Your task to perform on an android device: open app "Grab" (install if not already installed) and go to login screen Image 0: 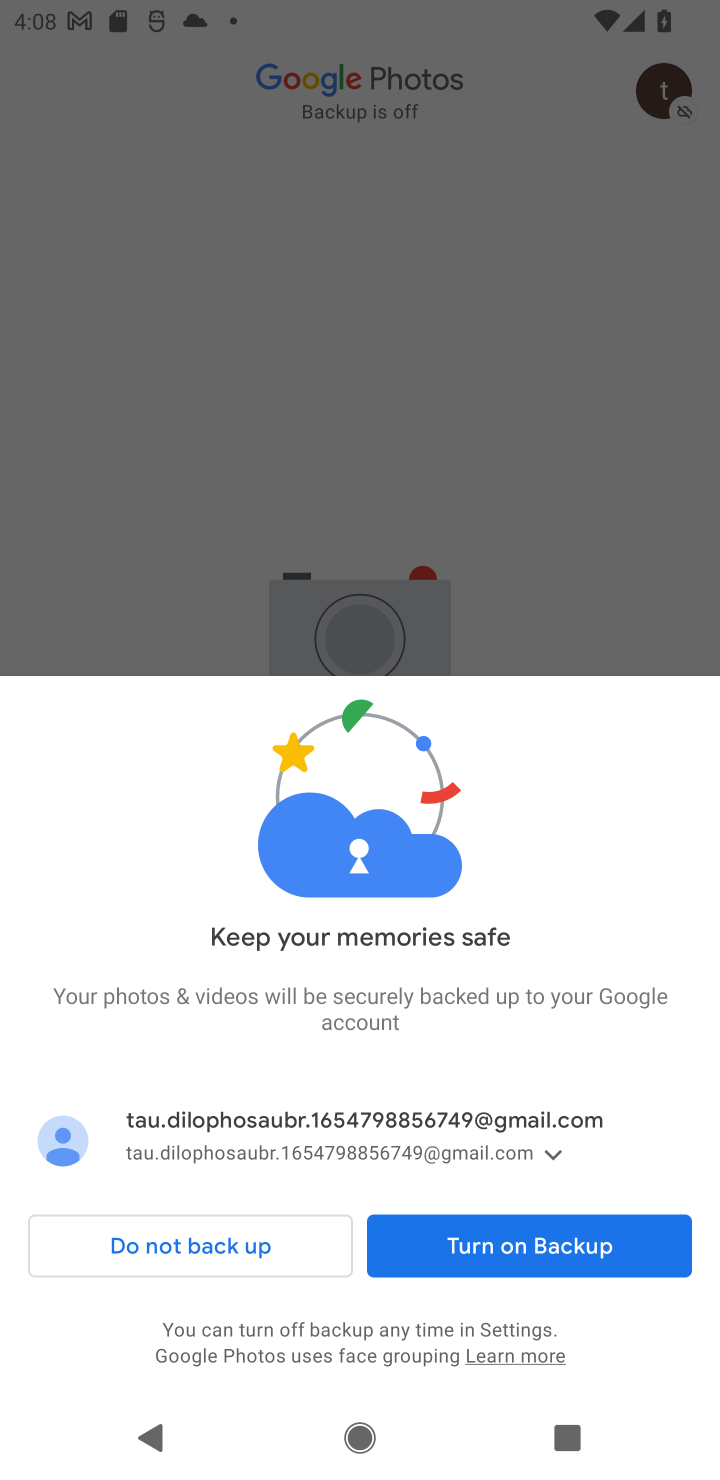
Step 0: press home button
Your task to perform on an android device: open app "Grab" (install if not already installed) and go to login screen Image 1: 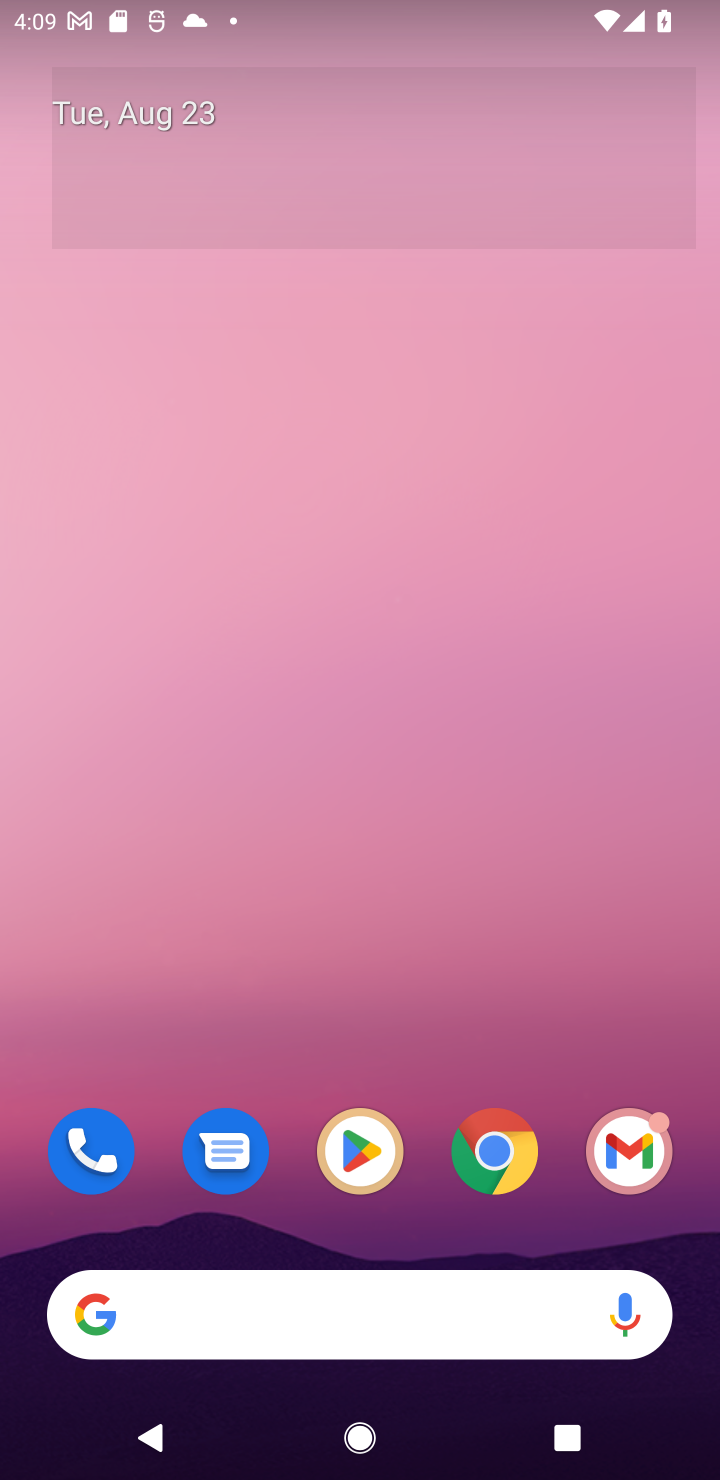
Step 1: click (349, 1148)
Your task to perform on an android device: open app "Grab" (install if not already installed) and go to login screen Image 2: 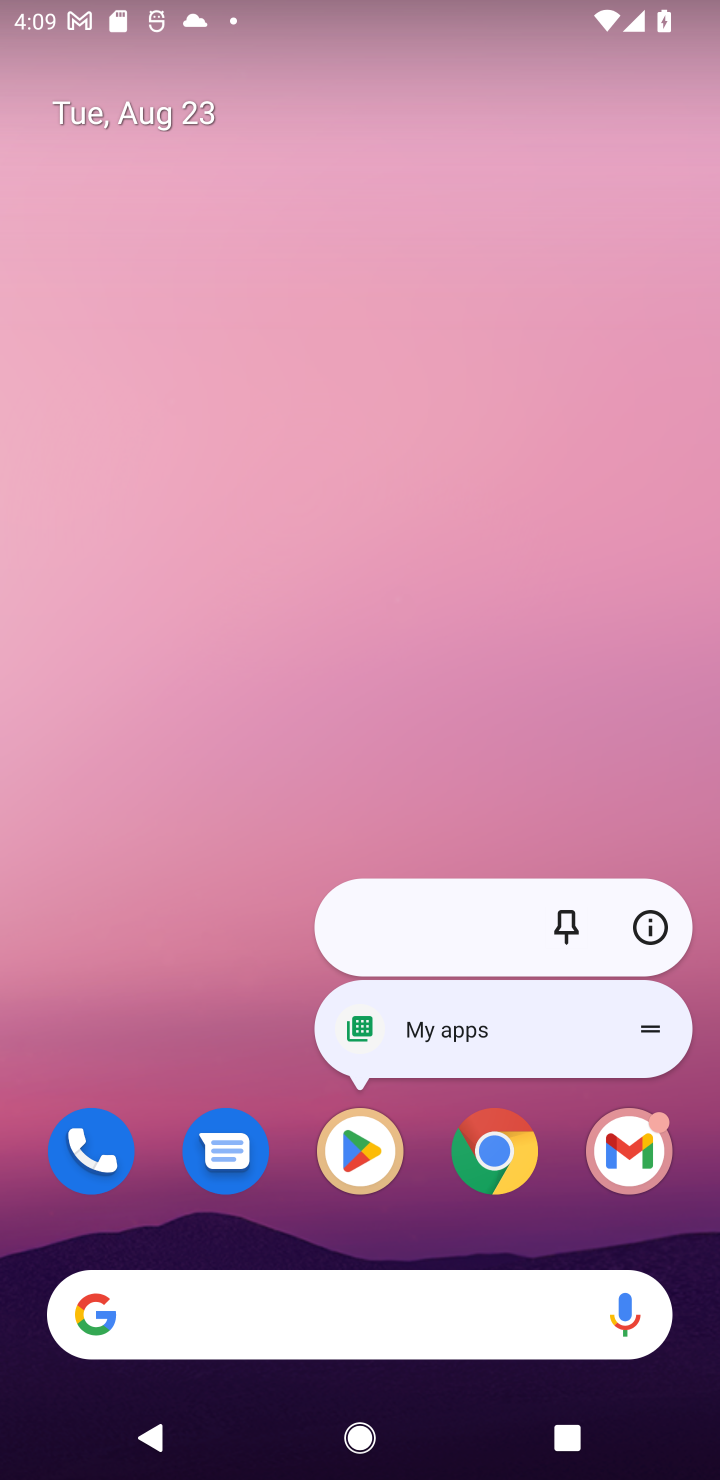
Step 2: click (349, 1161)
Your task to perform on an android device: open app "Grab" (install if not already installed) and go to login screen Image 3: 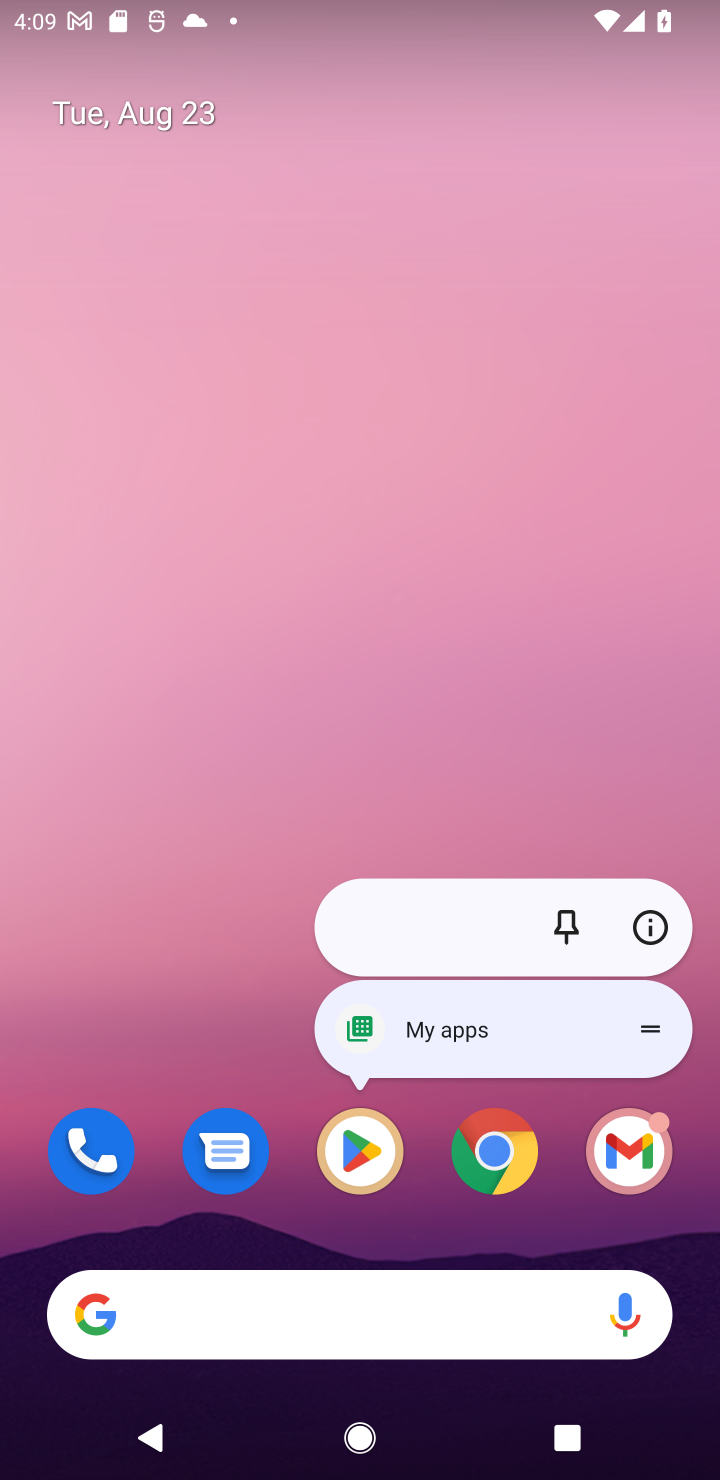
Step 3: click (349, 1161)
Your task to perform on an android device: open app "Grab" (install if not already installed) and go to login screen Image 4: 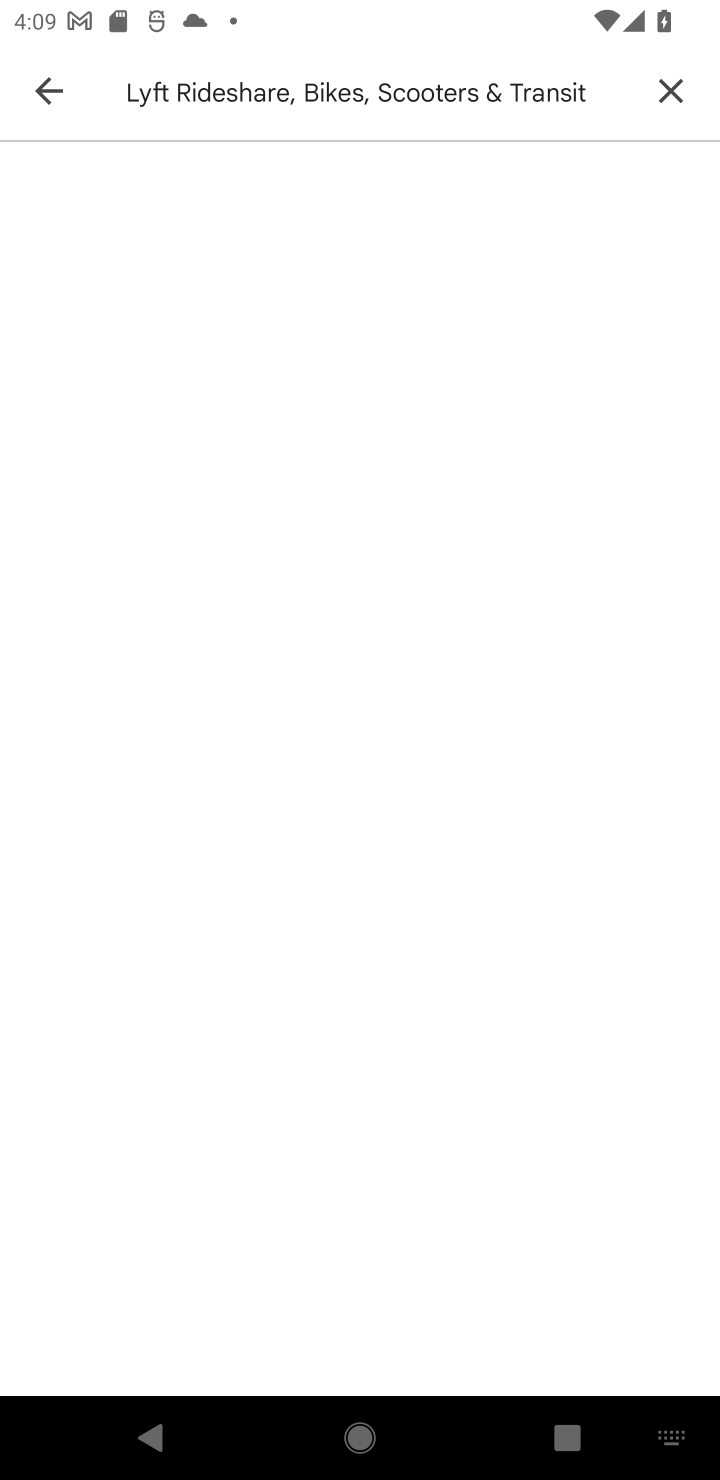
Step 4: click (657, 83)
Your task to perform on an android device: open app "Grab" (install if not already installed) and go to login screen Image 5: 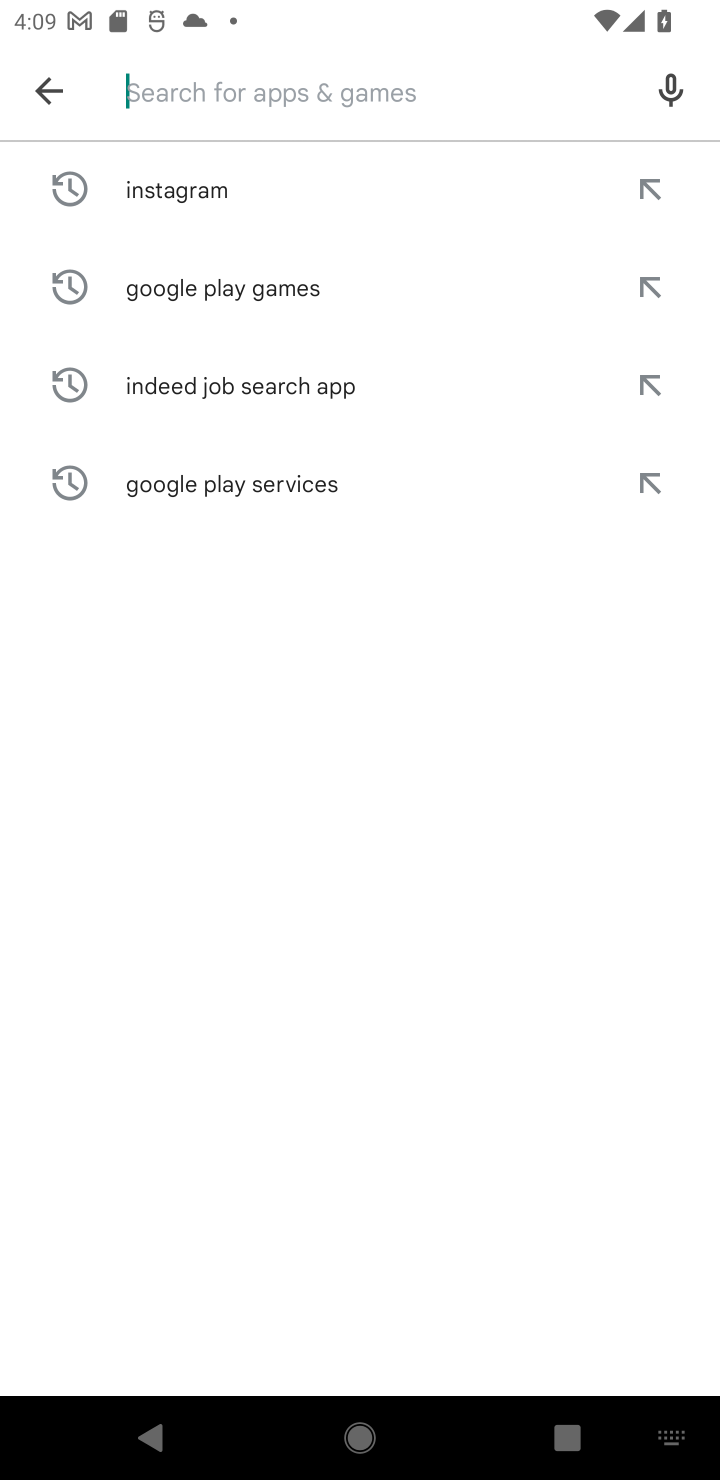
Step 5: type "Grab"
Your task to perform on an android device: open app "Grab" (install if not already installed) and go to login screen Image 6: 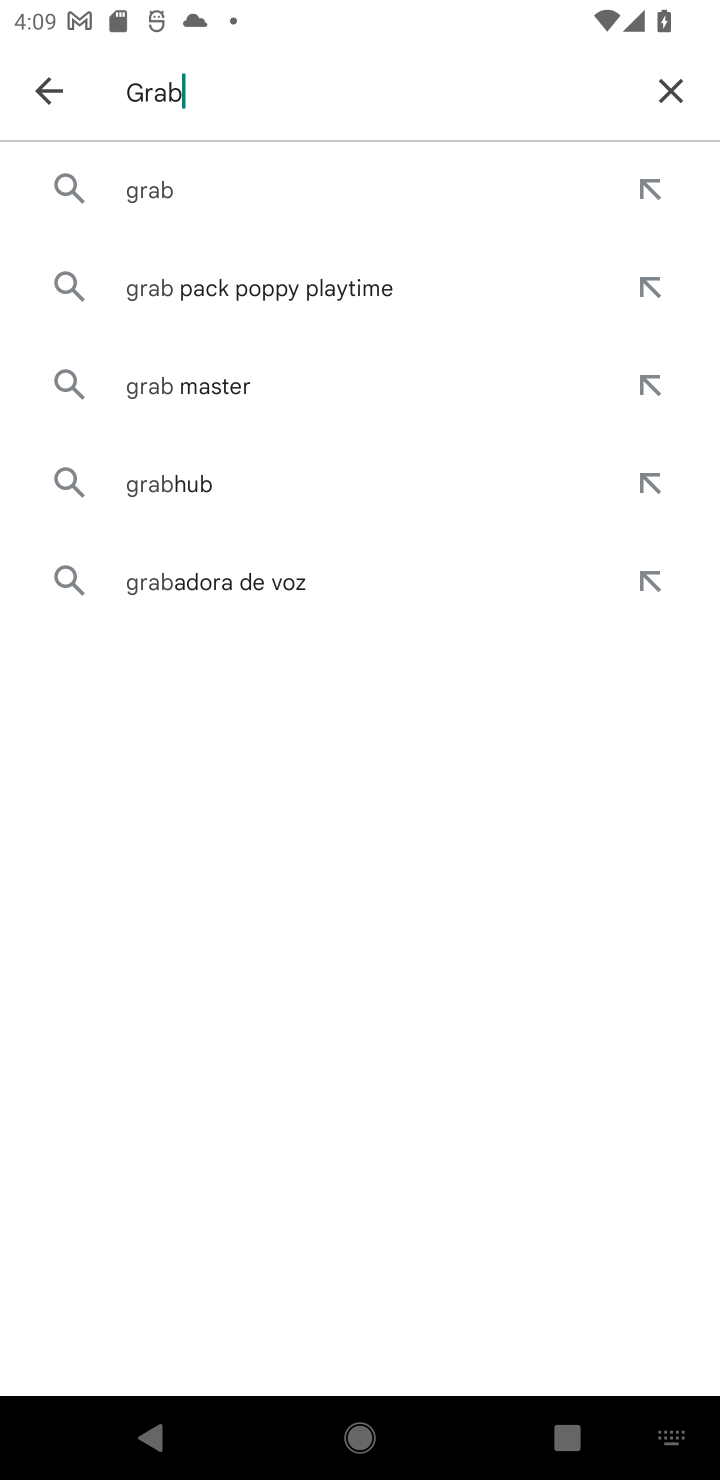
Step 6: click (168, 185)
Your task to perform on an android device: open app "Grab" (install if not already installed) and go to login screen Image 7: 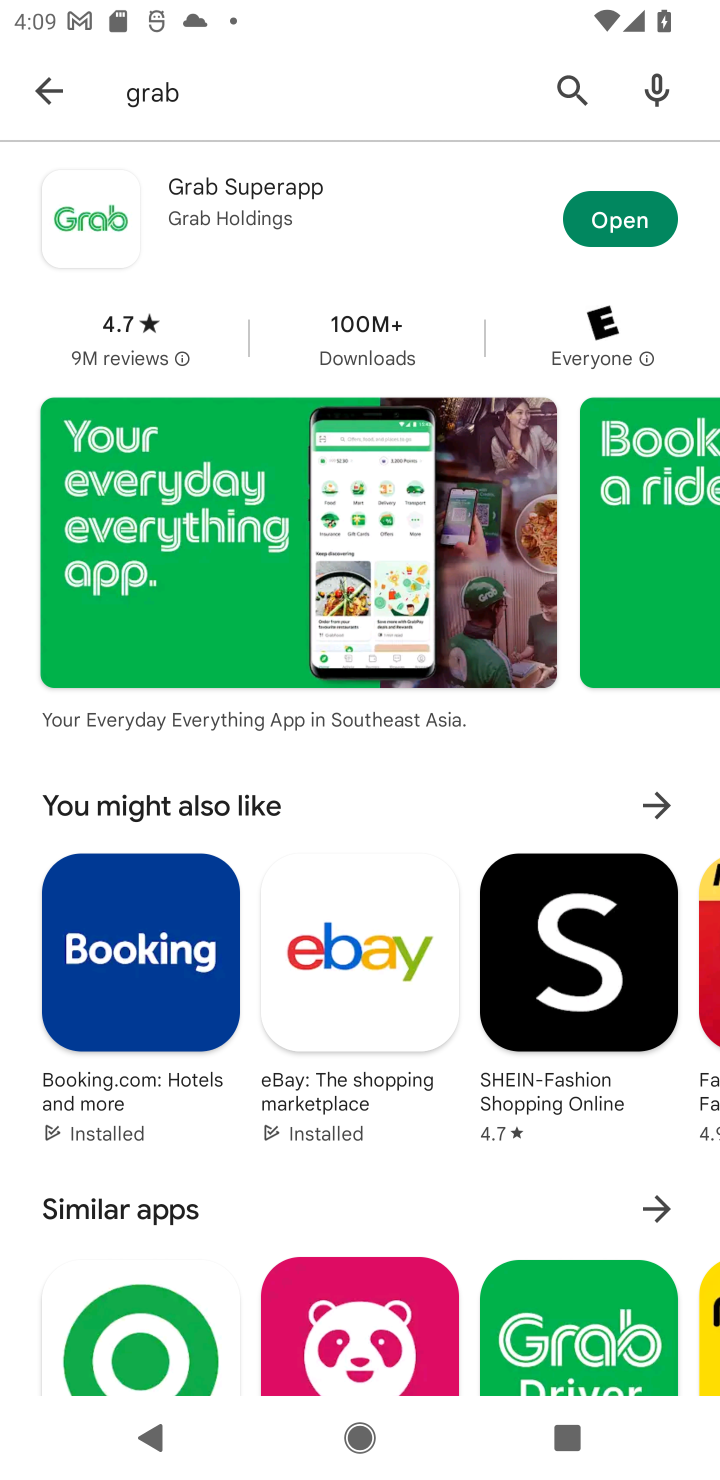
Step 7: click (597, 222)
Your task to perform on an android device: open app "Grab" (install if not already installed) and go to login screen Image 8: 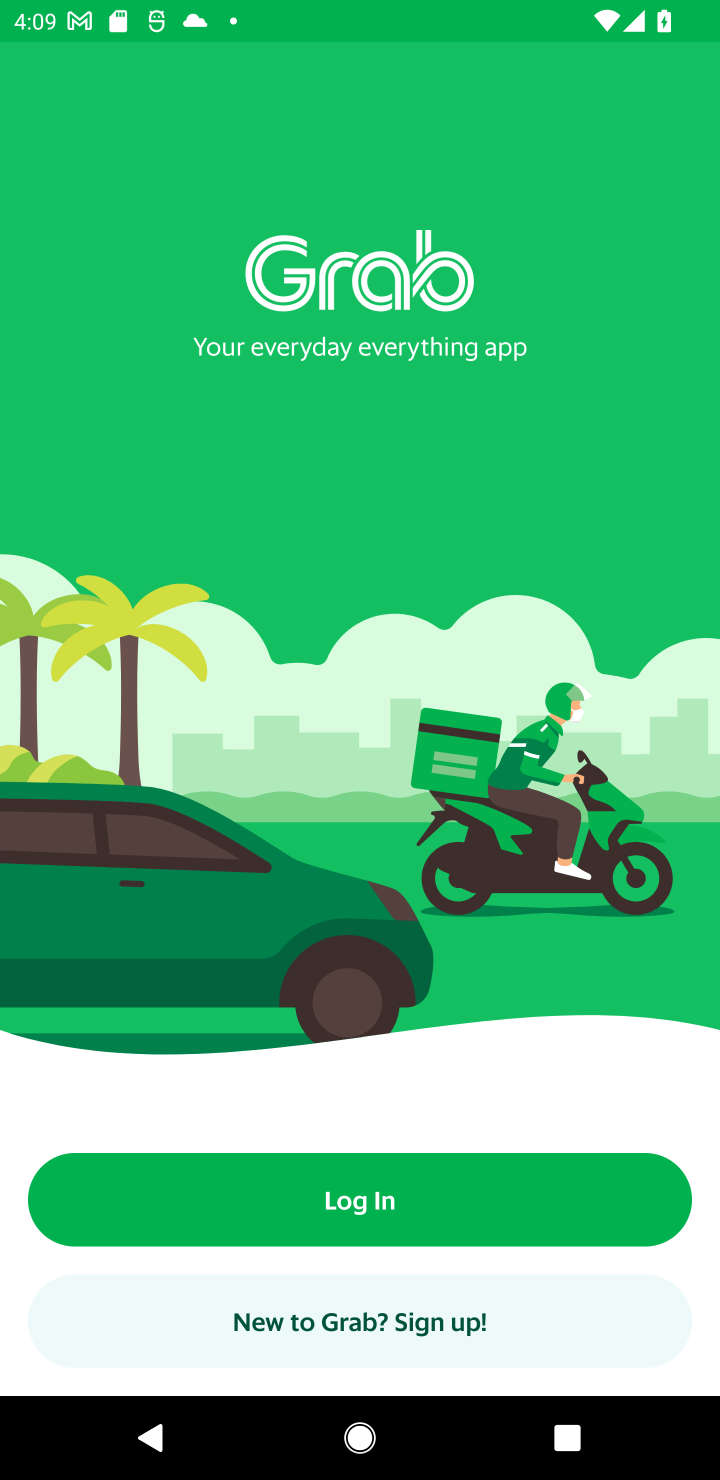
Step 8: click (363, 1191)
Your task to perform on an android device: open app "Grab" (install if not already installed) and go to login screen Image 9: 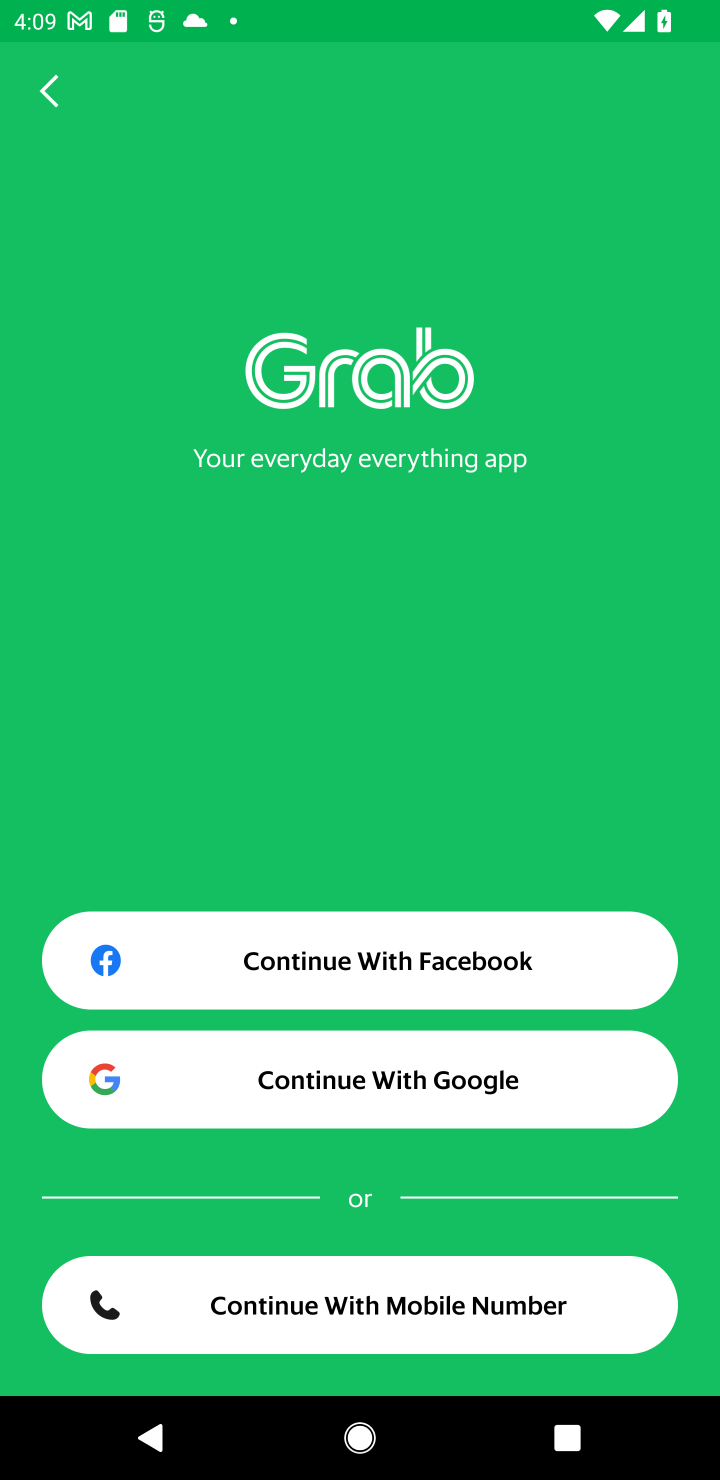
Step 9: task complete